Your task to perform on an android device: Empty the shopping cart on newegg. Image 0: 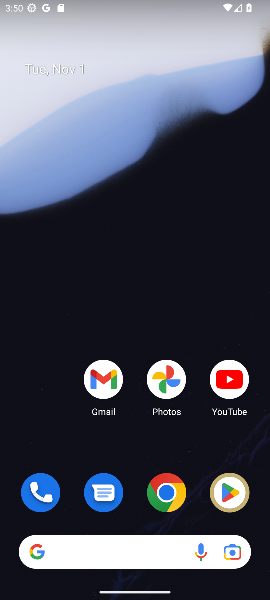
Step 0: click (169, 493)
Your task to perform on an android device: Empty the shopping cart on newegg. Image 1: 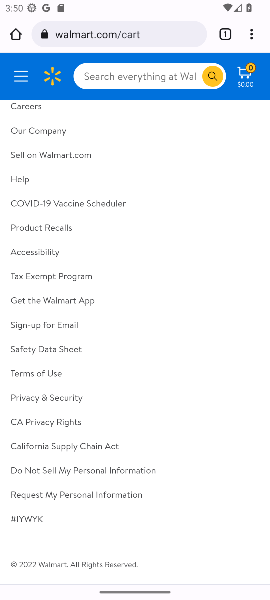
Step 1: click (103, 32)
Your task to perform on an android device: Empty the shopping cart on newegg. Image 2: 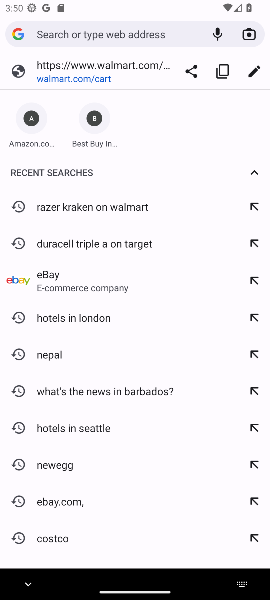
Step 2: type "newegg"
Your task to perform on an android device: Empty the shopping cart on newegg. Image 3: 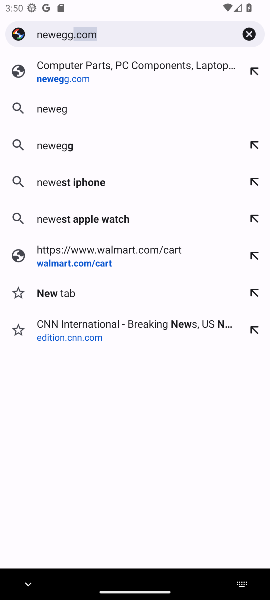
Step 3: type ""
Your task to perform on an android device: Empty the shopping cart on newegg. Image 4: 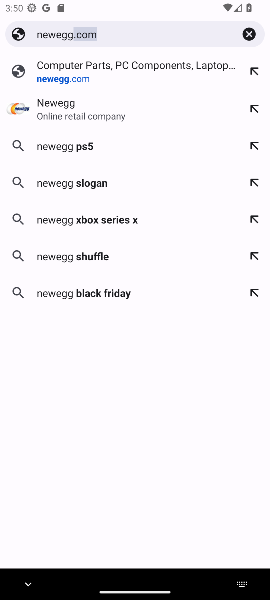
Step 4: click (119, 56)
Your task to perform on an android device: Empty the shopping cart on newegg. Image 5: 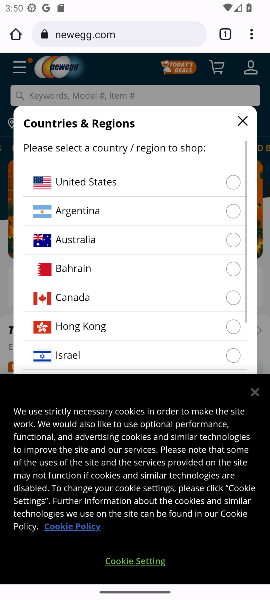
Step 5: click (149, 556)
Your task to perform on an android device: Empty the shopping cart on newegg. Image 6: 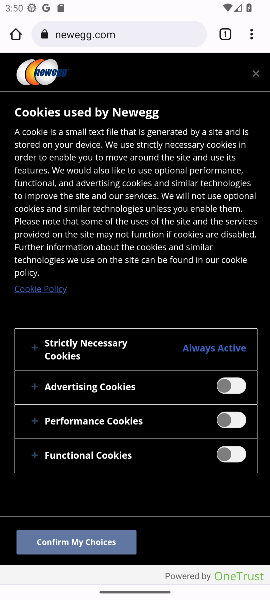
Step 6: click (45, 541)
Your task to perform on an android device: Empty the shopping cart on newegg. Image 7: 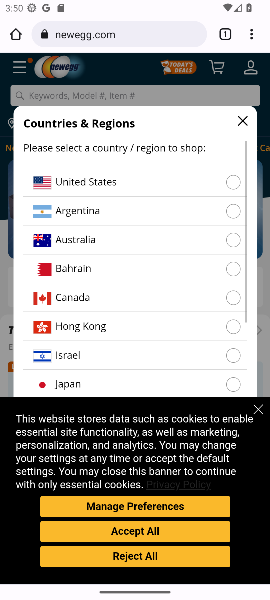
Step 7: click (247, 126)
Your task to perform on an android device: Empty the shopping cart on newegg. Image 8: 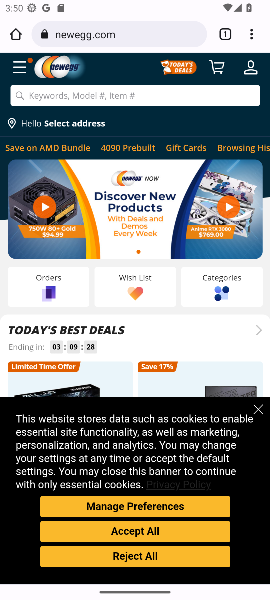
Step 8: click (244, 121)
Your task to perform on an android device: Empty the shopping cart on newegg. Image 9: 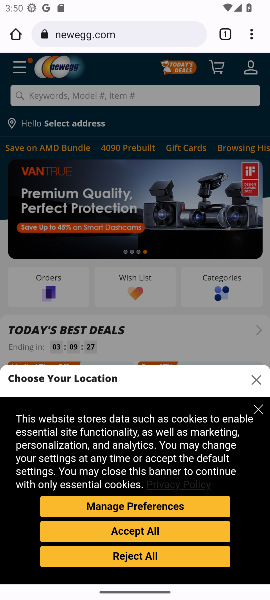
Step 9: click (212, 66)
Your task to perform on an android device: Empty the shopping cart on newegg. Image 10: 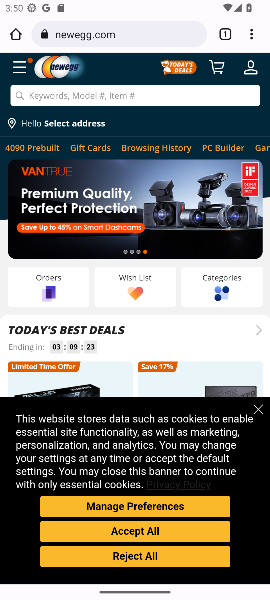
Step 10: click (119, 535)
Your task to perform on an android device: Empty the shopping cart on newegg. Image 11: 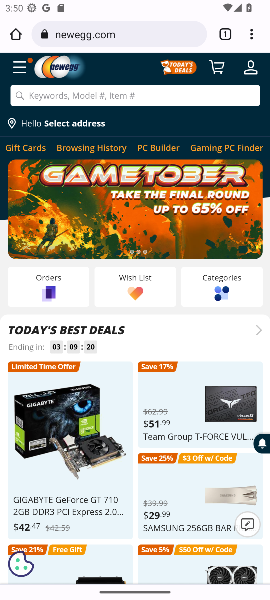
Step 11: click (225, 73)
Your task to perform on an android device: Empty the shopping cart on newegg. Image 12: 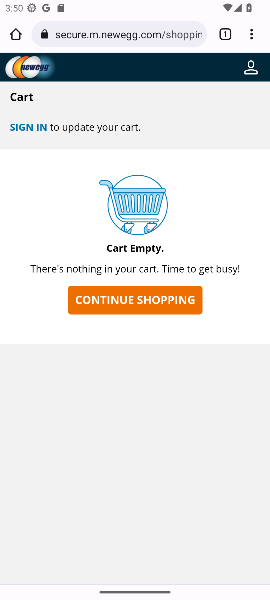
Step 12: press back button
Your task to perform on an android device: Empty the shopping cart on newegg. Image 13: 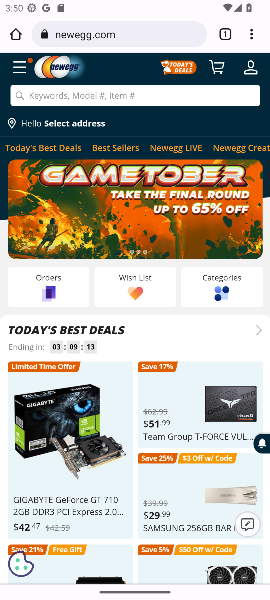
Step 13: click (216, 65)
Your task to perform on an android device: Empty the shopping cart on newegg. Image 14: 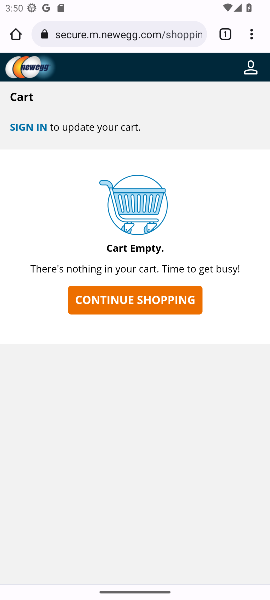
Step 14: task complete